Your task to perform on an android device: add a contact Image 0: 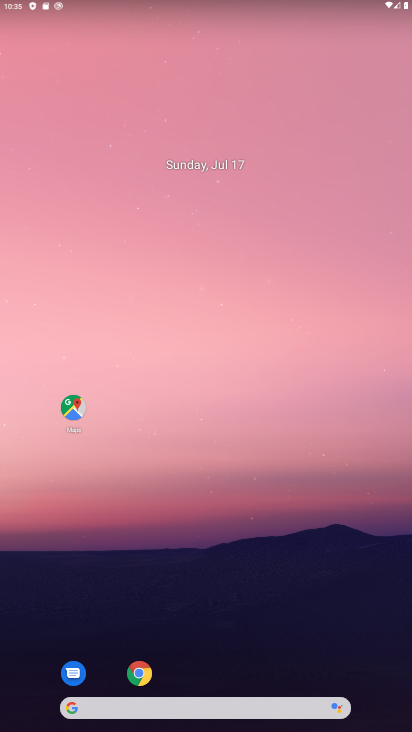
Step 0: drag from (205, 680) to (238, 99)
Your task to perform on an android device: add a contact Image 1: 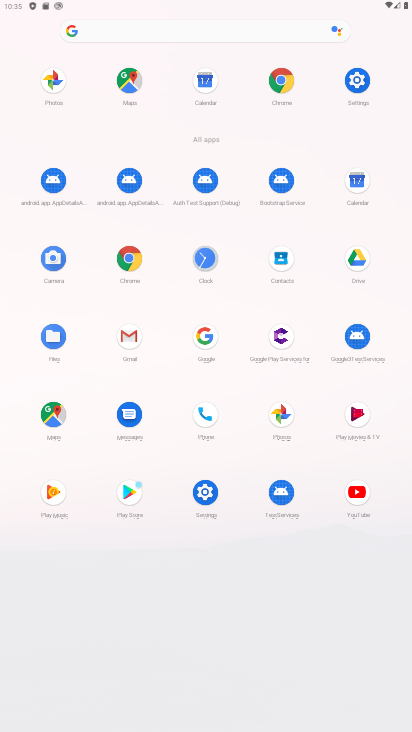
Step 1: click (281, 257)
Your task to perform on an android device: add a contact Image 2: 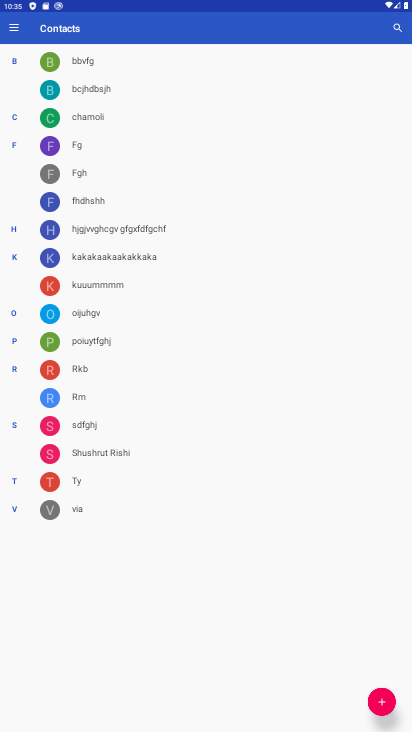
Step 2: click (382, 699)
Your task to perform on an android device: add a contact Image 3: 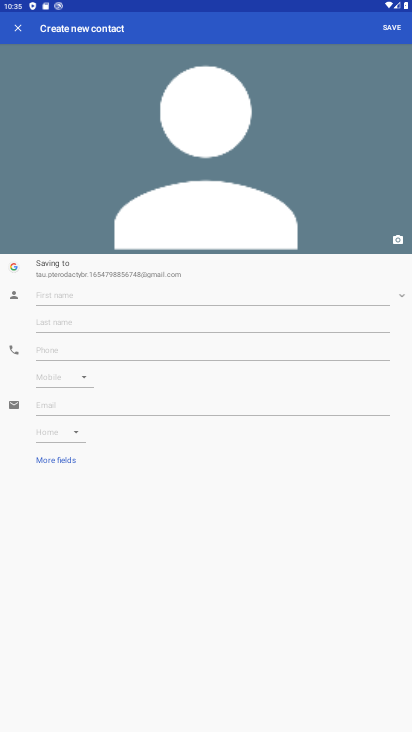
Step 3: click (128, 294)
Your task to perform on an android device: add a contact Image 4: 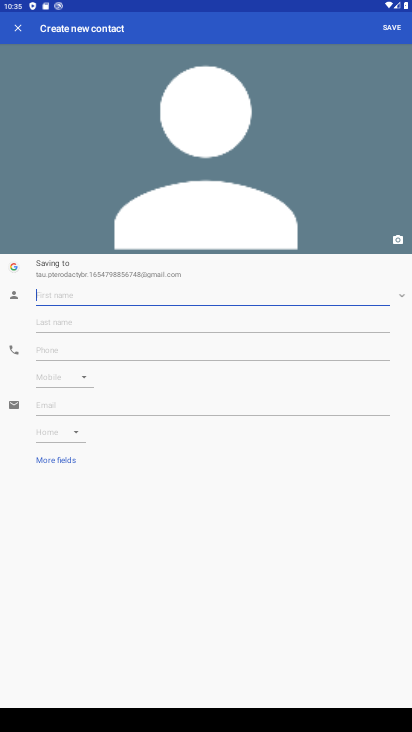
Step 4: type "jhdjhdhj"
Your task to perform on an android device: add a contact Image 5: 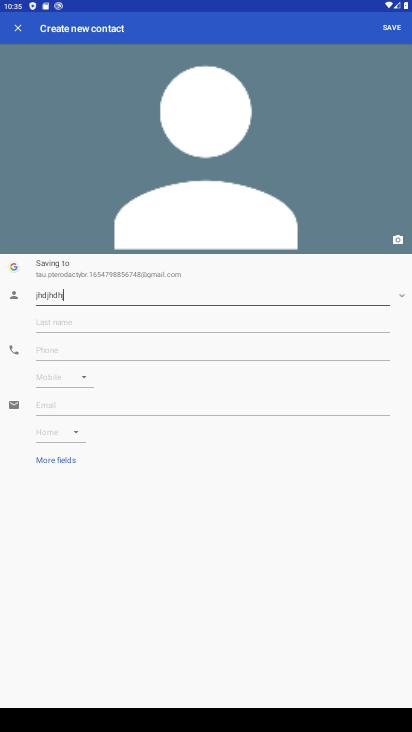
Step 5: click (163, 349)
Your task to perform on an android device: add a contact Image 6: 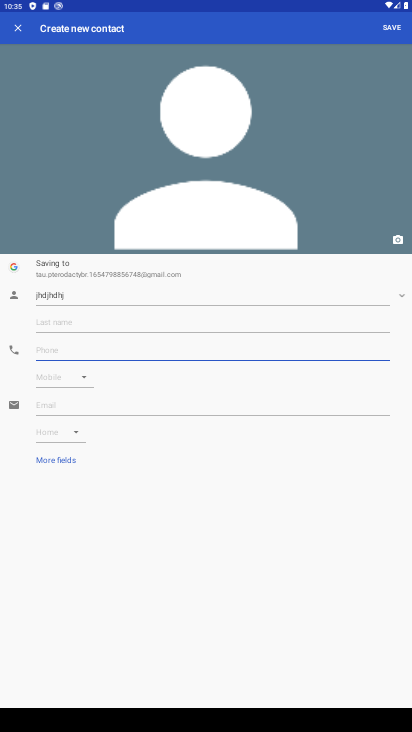
Step 6: type "7575757857"
Your task to perform on an android device: add a contact Image 7: 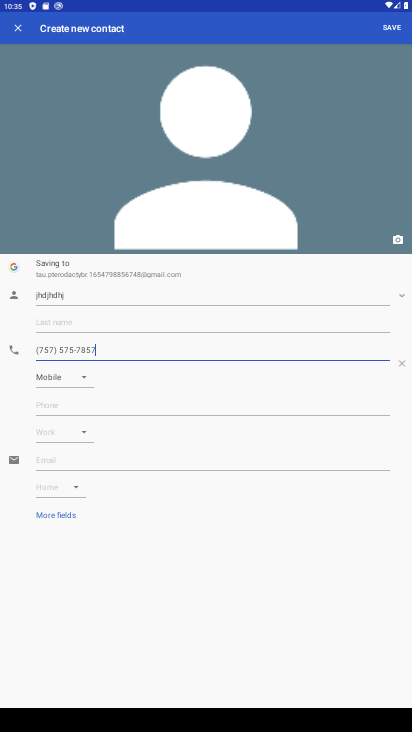
Step 7: click (388, 26)
Your task to perform on an android device: add a contact Image 8: 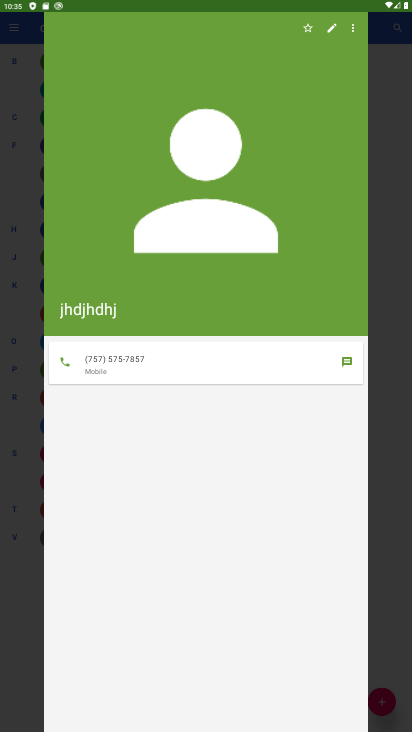
Step 8: task complete